Your task to perform on an android device: turn off notifications in google photos Image 0: 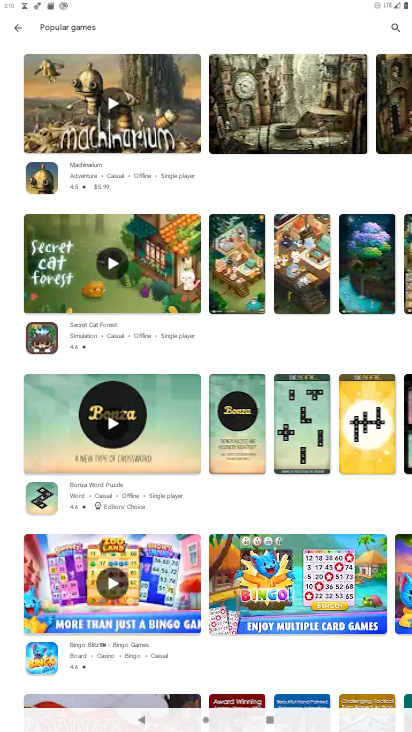
Step 0: press home button
Your task to perform on an android device: turn off notifications in google photos Image 1: 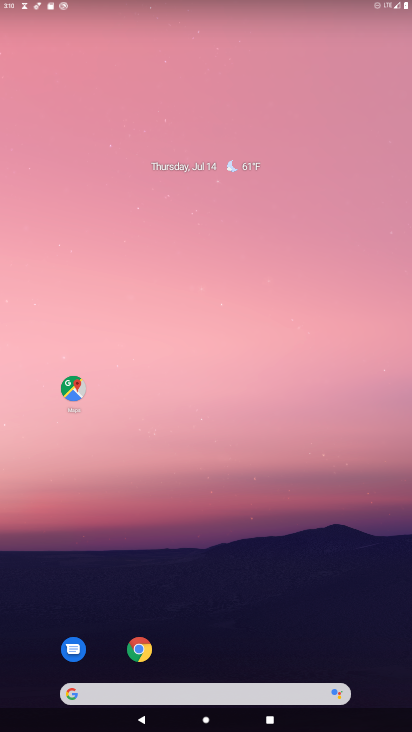
Step 1: drag from (326, 654) to (335, 6)
Your task to perform on an android device: turn off notifications in google photos Image 2: 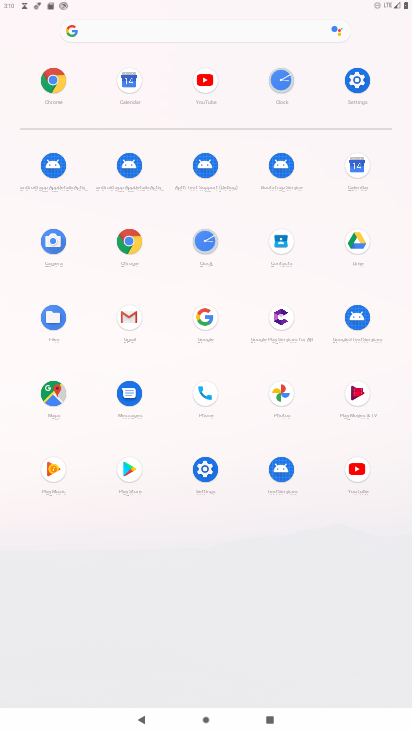
Step 2: click (280, 389)
Your task to perform on an android device: turn off notifications in google photos Image 3: 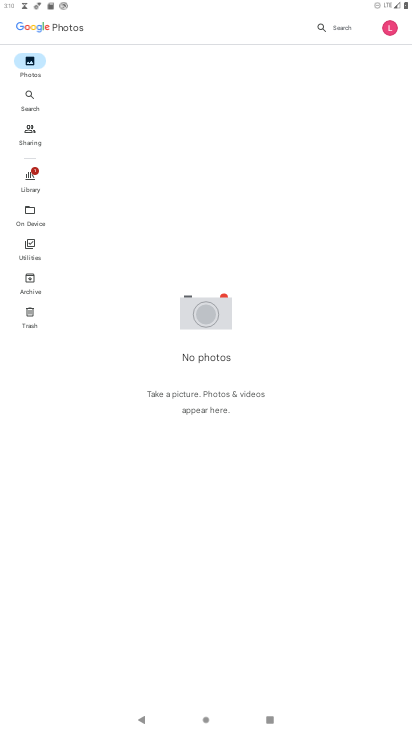
Step 3: click (385, 23)
Your task to perform on an android device: turn off notifications in google photos Image 4: 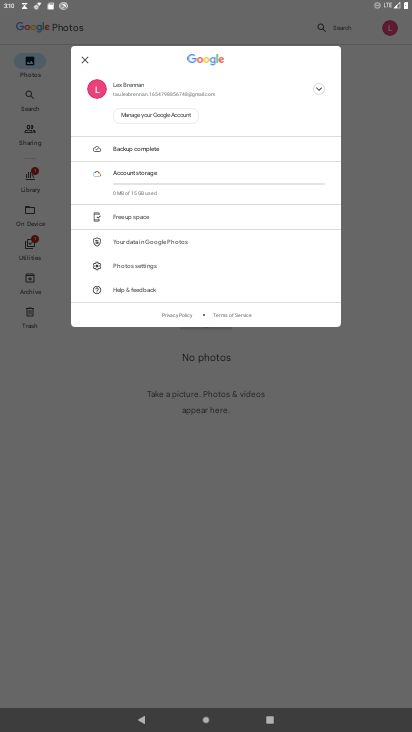
Step 4: click (146, 267)
Your task to perform on an android device: turn off notifications in google photos Image 5: 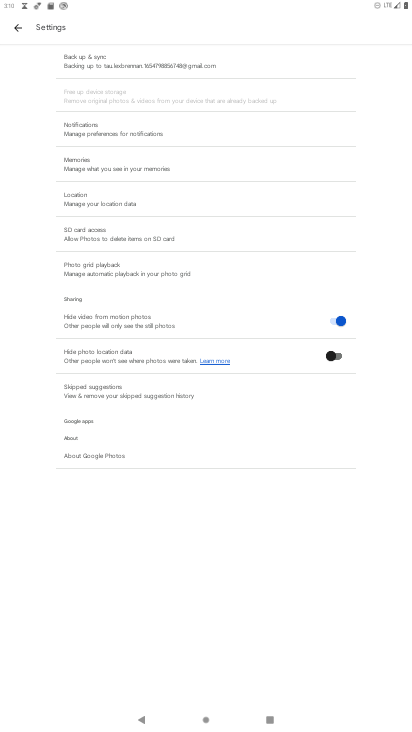
Step 5: click (140, 136)
Your task to perform on an android device: turn off notifications in google photos Image 6: 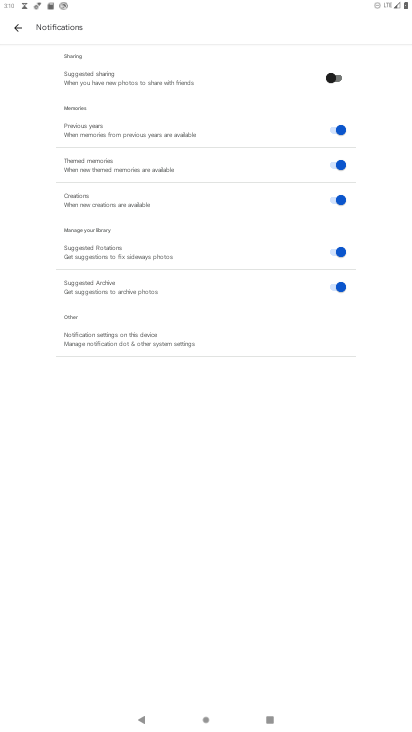
Step 6: click (180, 343)
Your task to perform on an android device: turn off notifications in google photos Image 7: 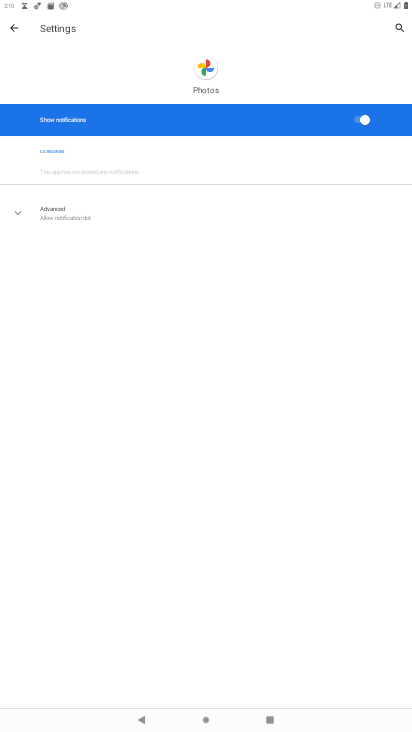
Step 7: click (362, 119)
Your task to perform on an android device: turn off notifications in google photos Image 8: 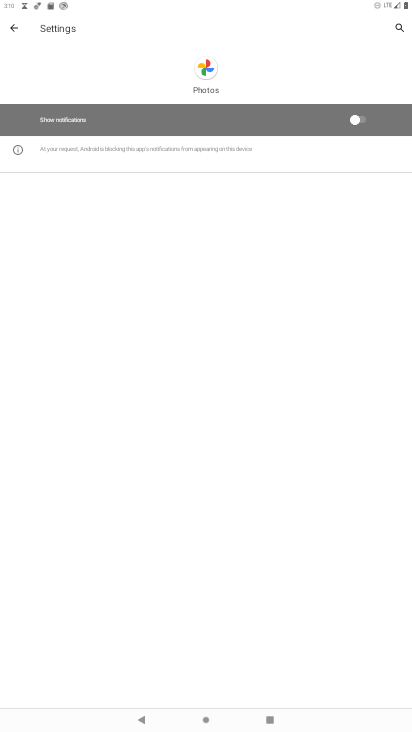
Step 8: task complete